Your task to perform on an android device: Search for sushi restaurants on Maps Image 0: 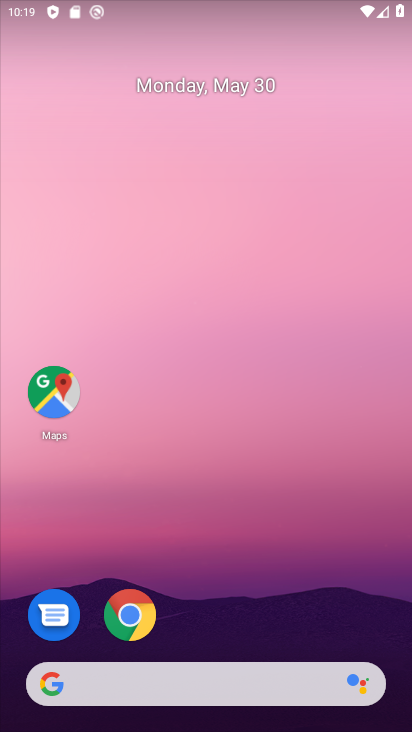
Step 0: drag from (246, 349) to (240, 14)
Your task to perform on an android device: Search for sushi restaurants on Maps Image 1: 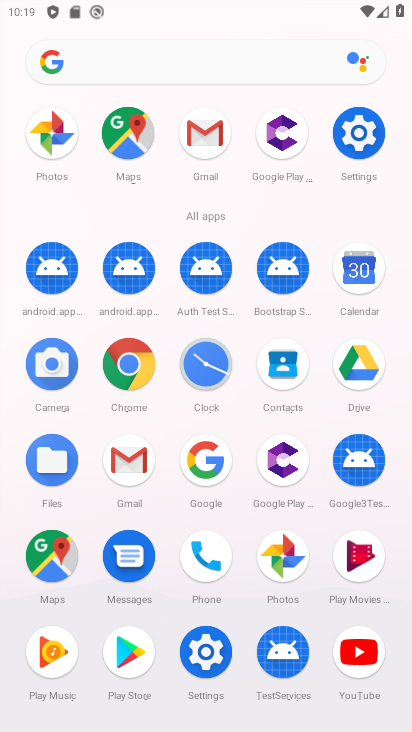
Step 1: drag from (19, 585) to (6, 292)
Your task to perform on an android device: Search for sushi restaurants on Maps Image 2: 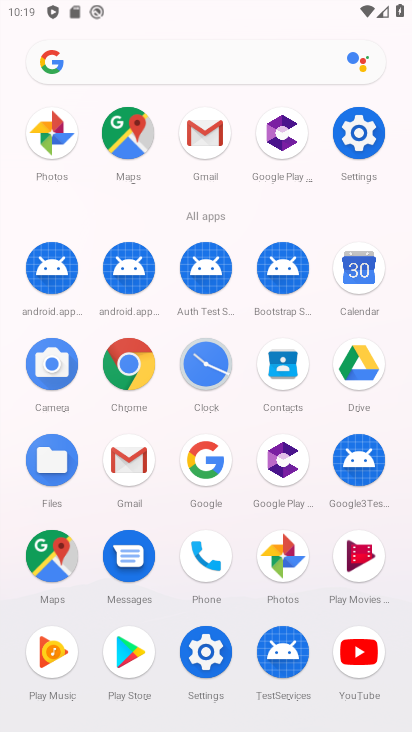
Step 2: click (128, 133)
Your task to perform on an android device: Search for sushi restaurants on Maps Image 3: 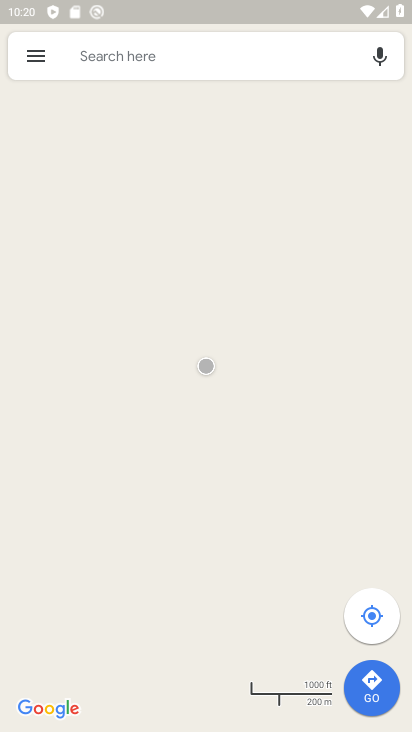
Step 3: click (225, 53)
Your task to perform on an android device: Search for sushi restaurants on Maps Image 4: 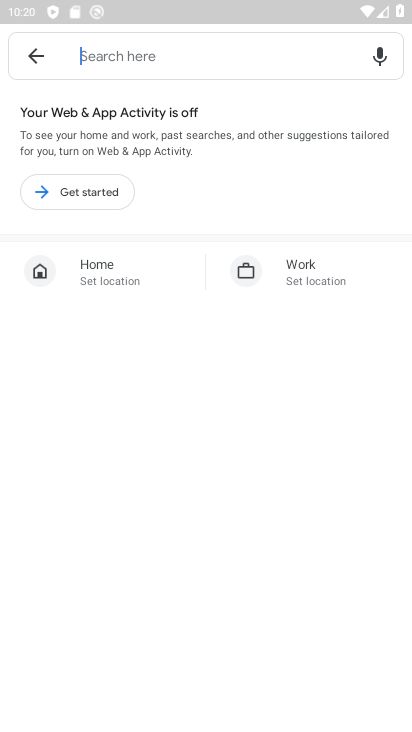
Step 4: click (225, 53)
Your task to perform on an android device: Search for sushi restaurants on Maps Image 5: 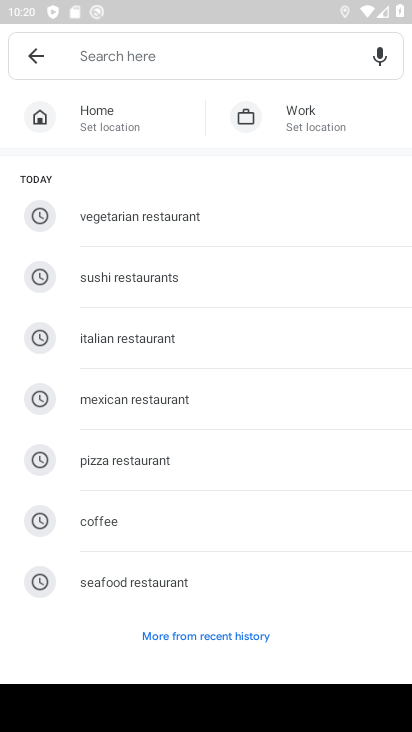
Step 5: click (171, 282)
Your task to perform on an android device: Search for sushi restaurants on Maps Image 6: 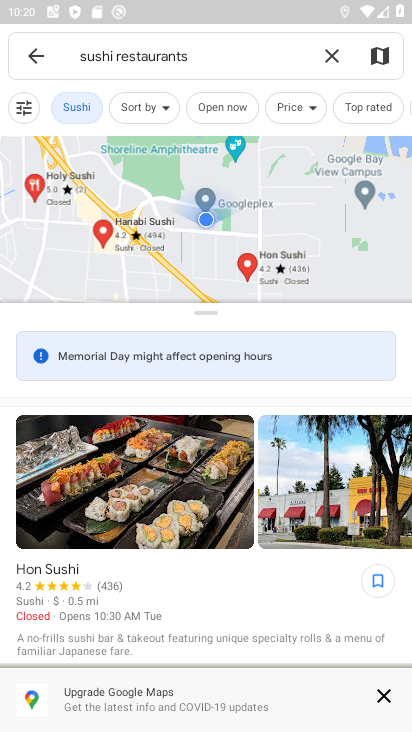
Step 6: task complete